Your task to perform on an android device: turn on improve location accuracy Image 0: 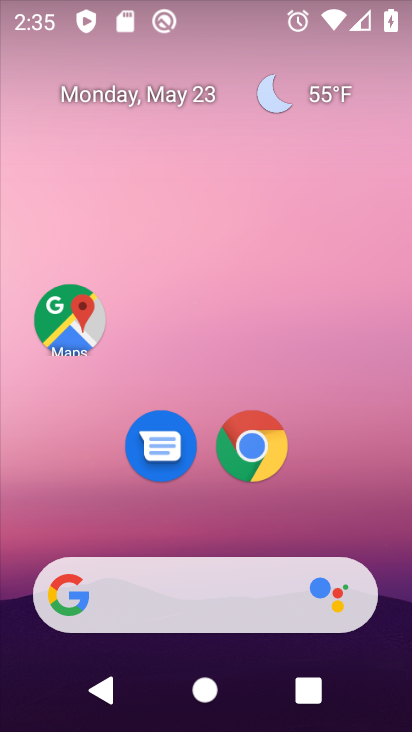
Step 0: drag from (201, 525) to (192, 121)
Your task to perform on an android device: turn on improve location accuracy Image 1: 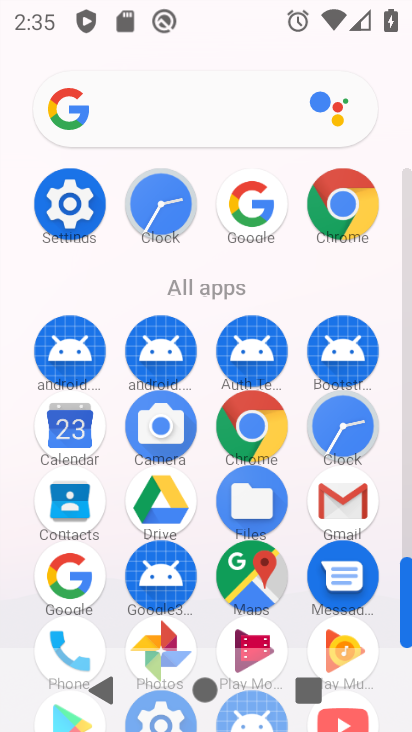
Step 1: click (63, 204)
Your task to perform on an android device: turn on improve location accuracy Image 2: 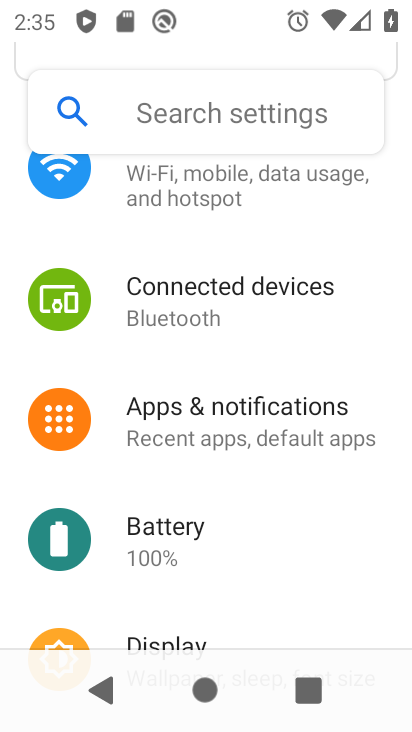
Step 2: drag from (245, 543) to (270, 196)
Your task to perform on an android device: turn on improve location accuracy Image 3: 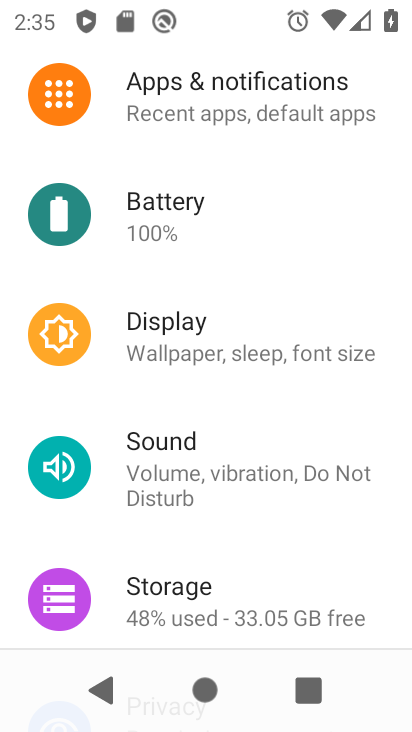
Step 3: drag from (267, 503) to (271, 232)
Your task to perform on an android device: turn on improve location accuracy Image 4: 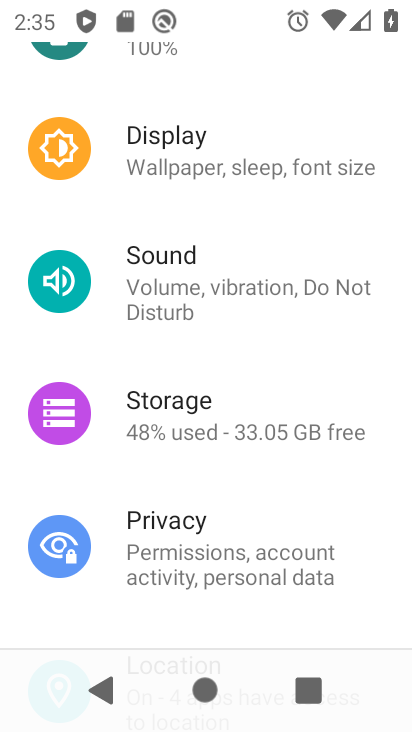
Step 4: drag from (184, 493) to (205, 240)
Your task to perform on an android device: turn on improve location accuracy Image 5: 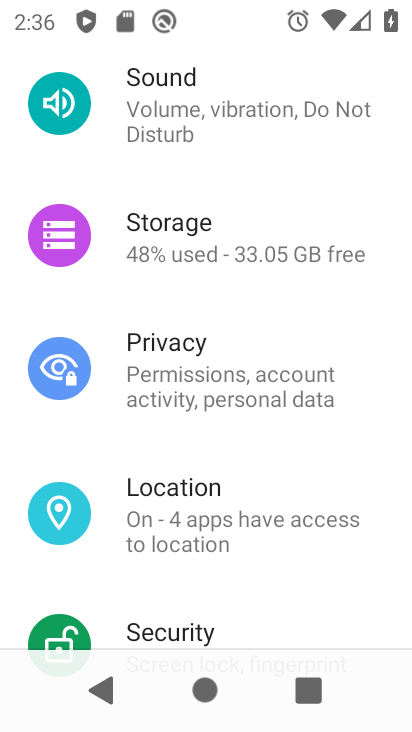
Step 5: click (186, 514)
Your task to perform on an android device: turn on improve location accuracy Image 6: 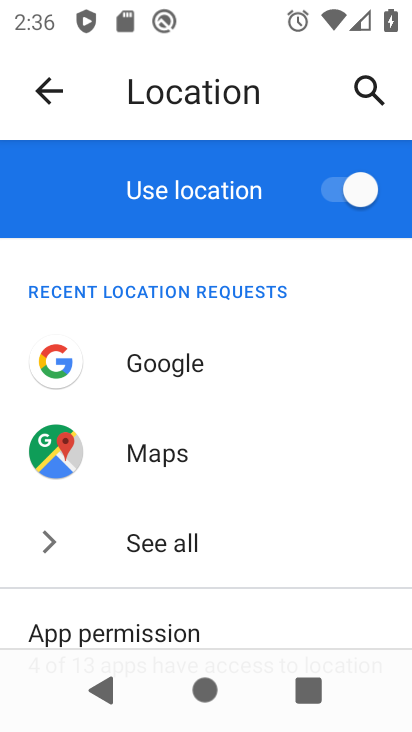
Step 6: drag from (189, 549) to (198, 333)
Your task to perform on an android device: turn on improve location accuracy Image 7: 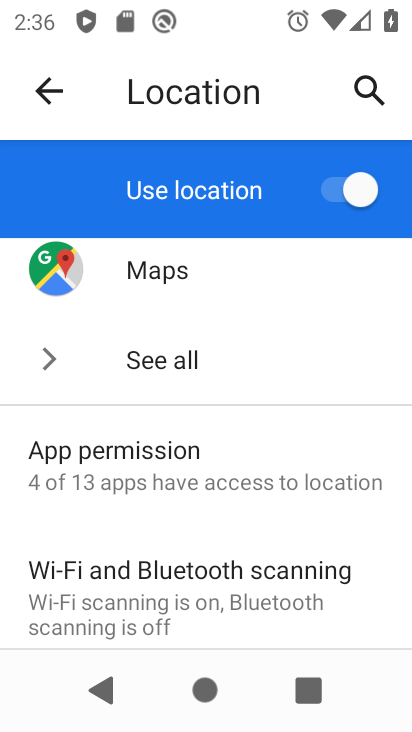
Step 7: drag from (219, 544) to (219, 337)
Your task to perform on an android device: turn on improve location accuracy Image 8: 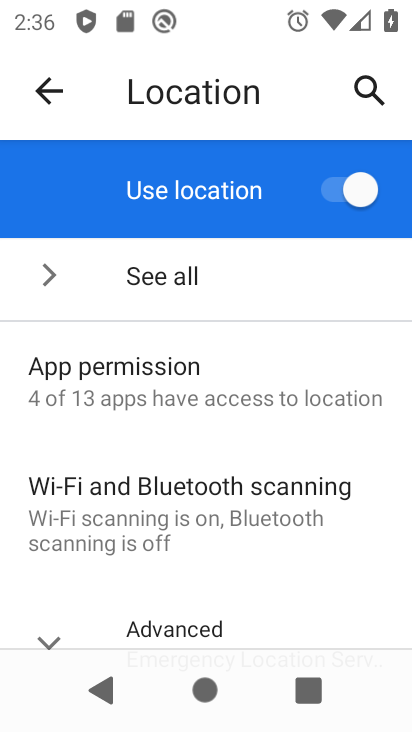
Step 8: drag from (192, 598) to (196, 375)
Your task to perform on an android device: turn on improve location accuracy Image 9: 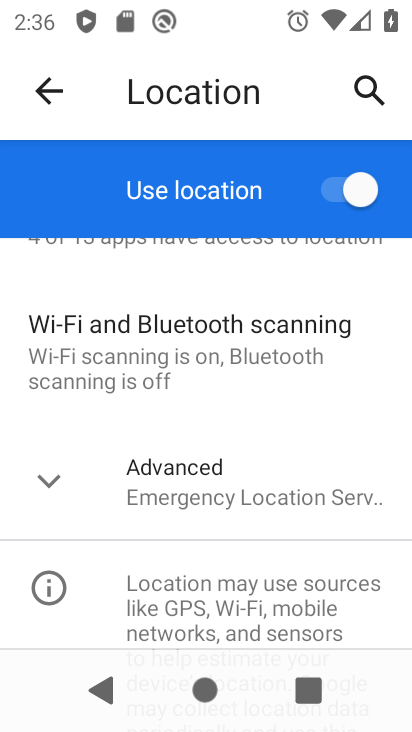
Step 9: click (183, 497)
Your task to perform on an android device: turn on improve location accuracy Image 10: 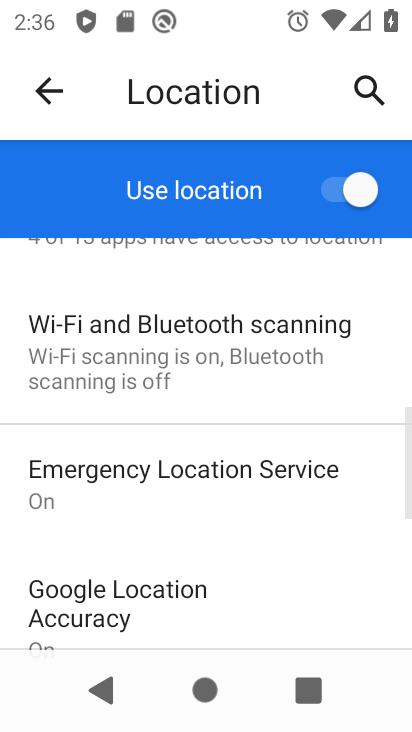
Step 10: drag from (201, 579) to (204, 335)
Your task to perform on an android device: turn on improve location accuracy Image 11: 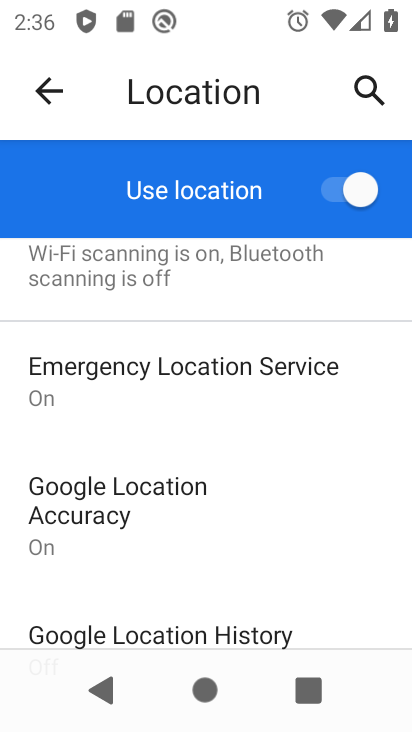
Step 11: drag from (217, 558) to (222, 306)
Your task to perform on an android device: turn on improve location accuracy Image 12: 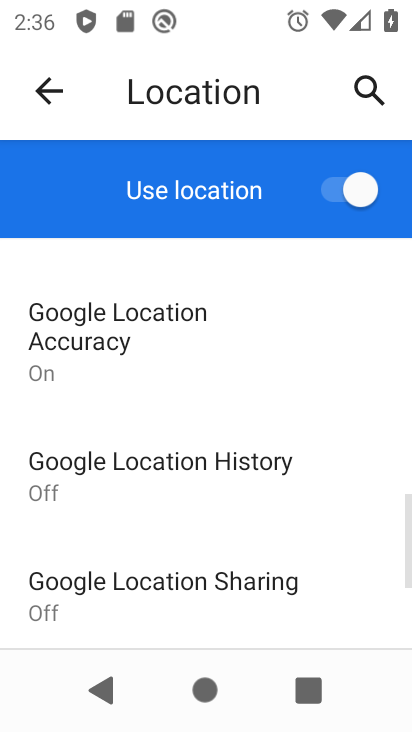
Step 12: drag from (211, 550) to (221, 317)
Your task to perform on an android device: turn on improve location accuracy Image 13: 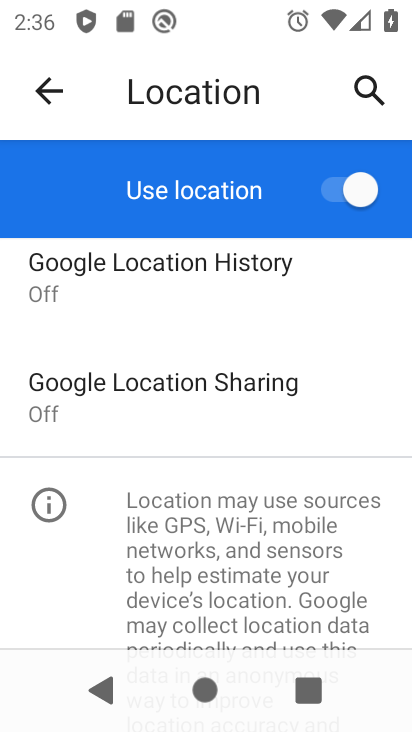
Step 13: drag from (224, 311) to (242, 551)
Your task to perform on an android device: turn on improve location accuracy Image 14: 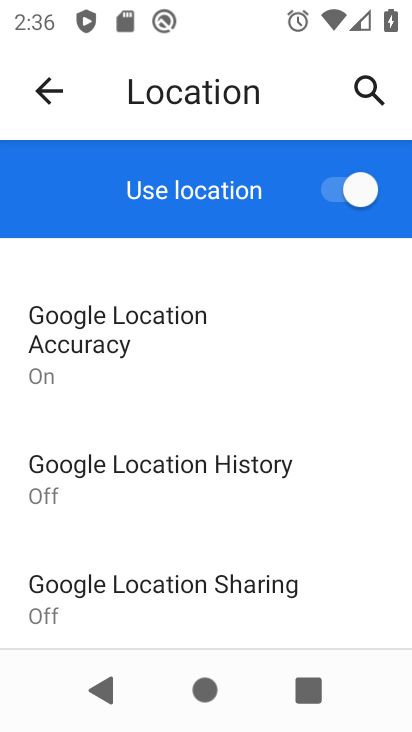
Step 14: click (189, 331)
Your task to perform on an android device: turn on improve location accuracy Image 15: 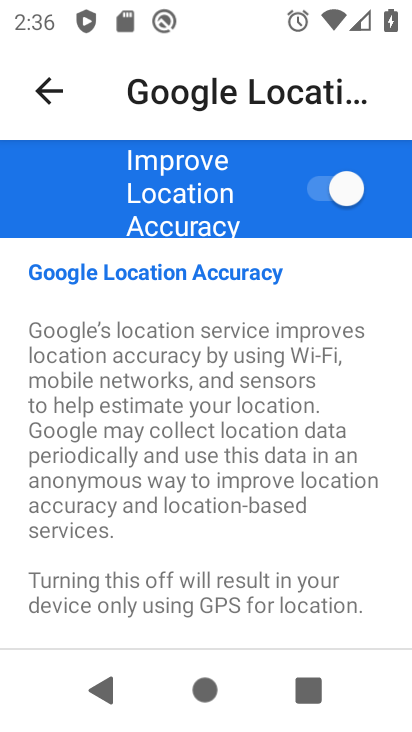
Step 15: task complete